Your task to perform on an android device: turn off location Image 0: 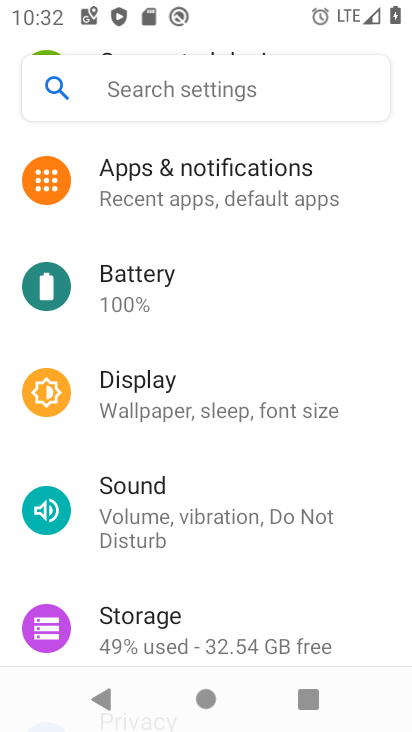
Step 0: drag from (179, 271) to (207, 571)
Your task to perform on an android device: turn off location Image 1: 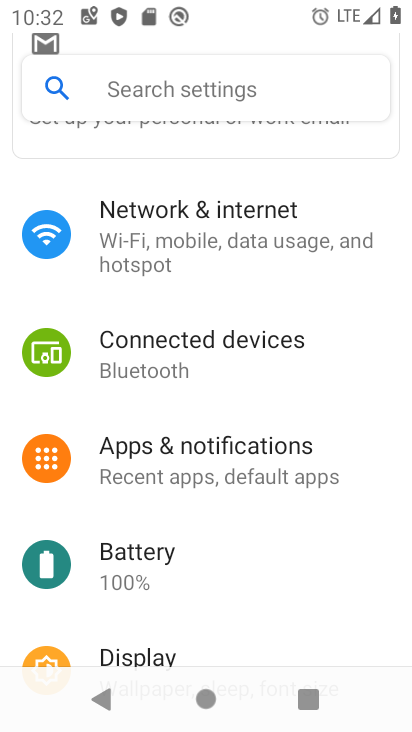
Step 1: drag from (206, 629) to (222, 304)
Your task to perform on an android device: turn off location Image 2: 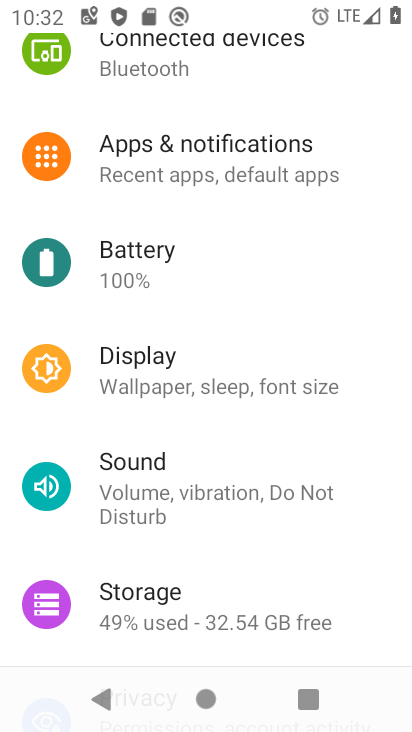
Step 2: click (174, 538)
Your task to perform on an android device: turn off location Image 3: 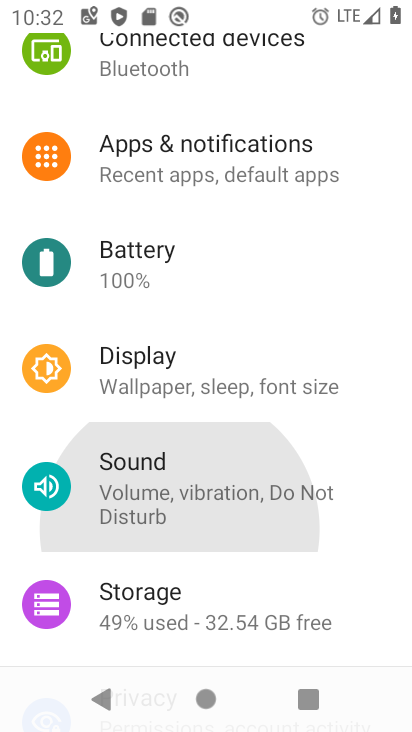
Step 3: drag from (179, 444) to (181, 250)
Your task to perform on an android device: turn off location Image 4: 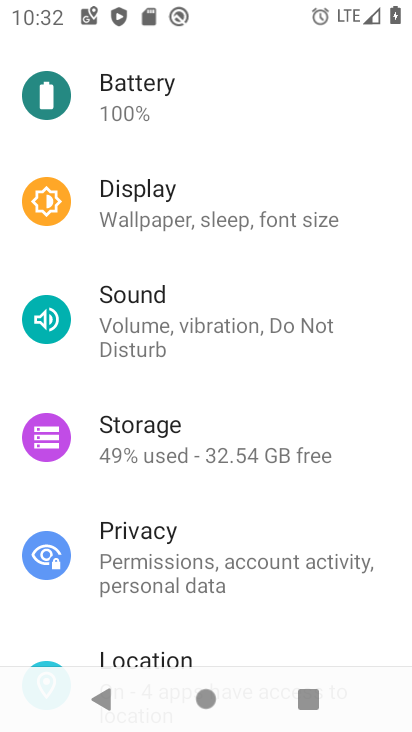
Step 4: drag from (185, 612) to (191, 333)
Your task to perform on an android device: turn off location Image 5: 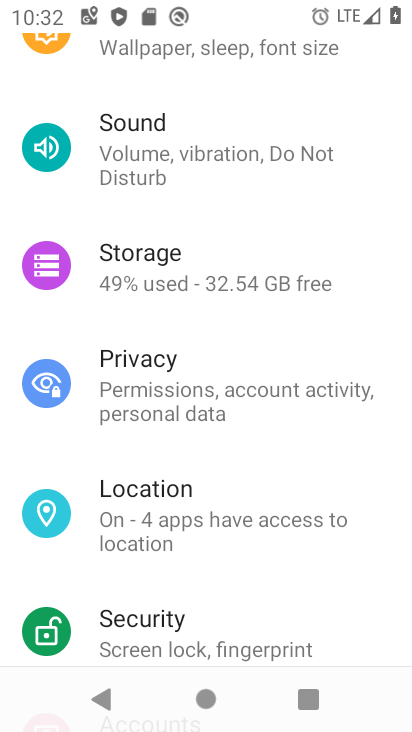
Step 5: click (166, 513)
Your task to perform on an android device: turn off location Image 6: 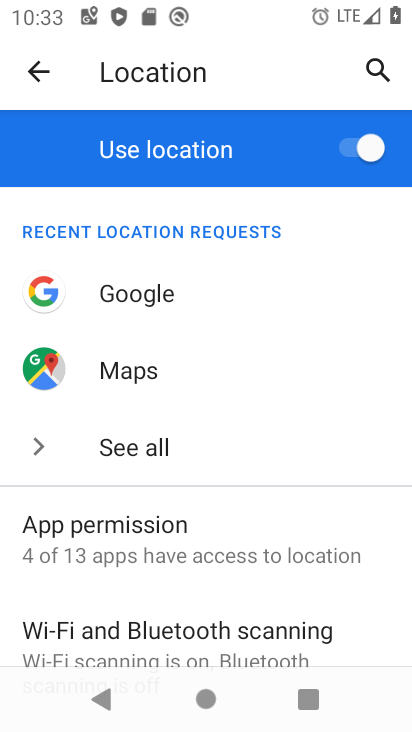
Step 6: task complete